Your task to perform on an android device: What's the weather going to be tomorrow? Image 0: 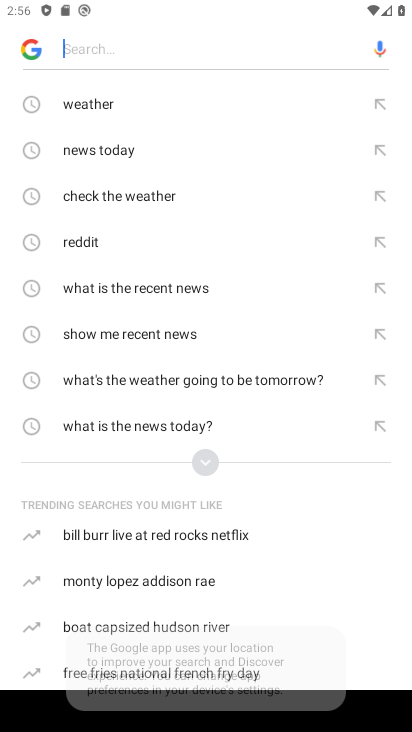
Step 0: press home button
Your task to perform on an android device: What's the weather going to be tomorrow? Image 1: 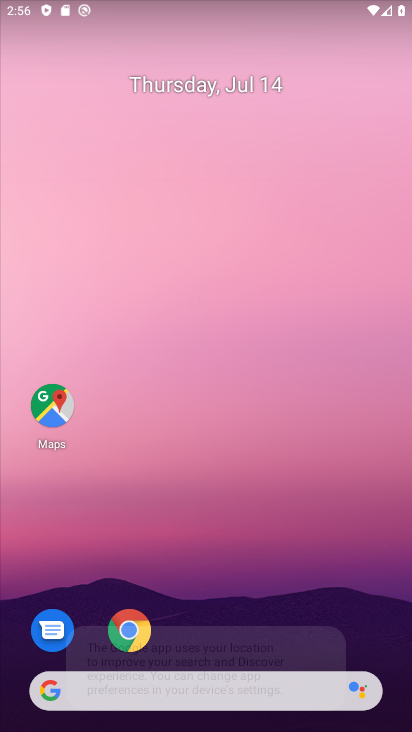
Step 1: task complete